Your task to perform on an android device: turn off priority inbox in the gmail app Image 0: 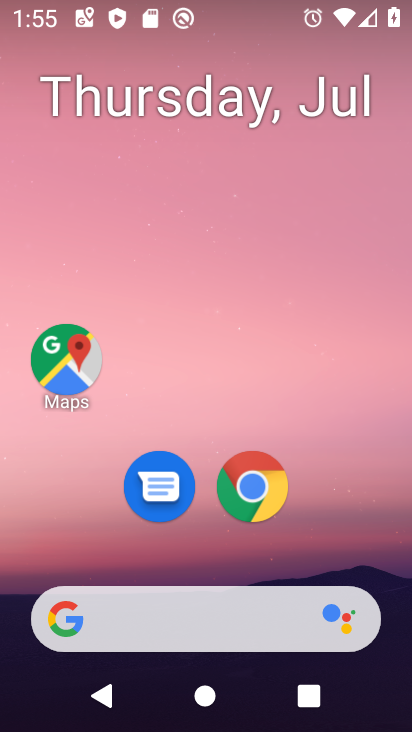
Step 0: drag from (163, 381) to (232, 39)
Your task to perform on an android device: turn off priority inbox in the gmail app Image 1: 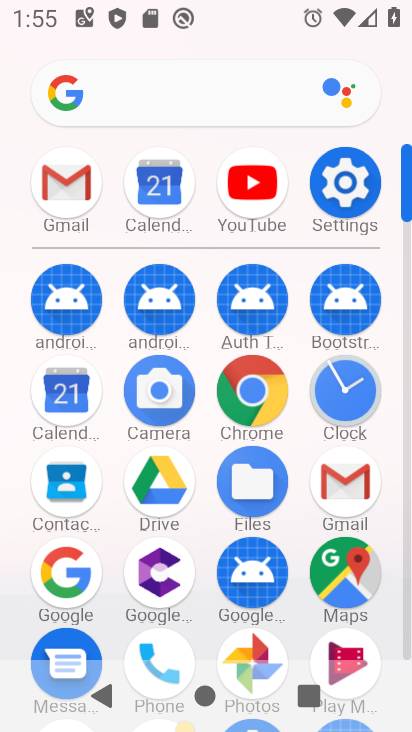
Step 1: click (67, 177)
Your task to perform on an android device: turn off priority inbox in the gmail app Image 2: 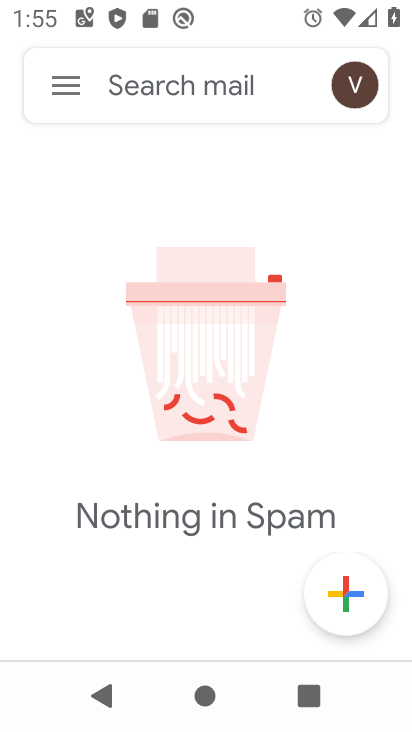
Step 2: click (62, 87)
Your task to perform on an android device: turn off priority inbox in the gmail app Image 3: 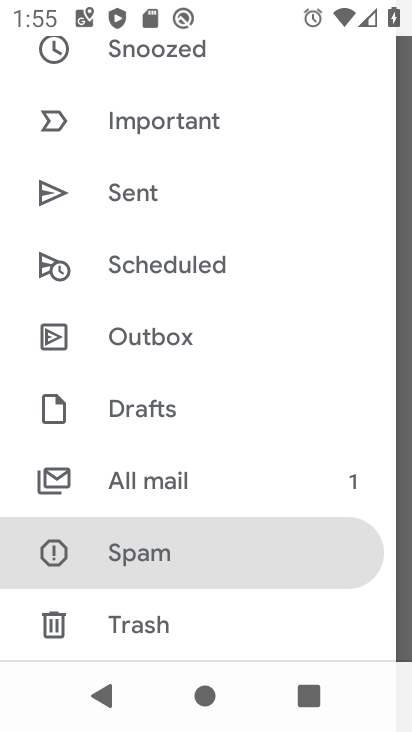
Step 3: drag from (191, 598) to (271, 52)
Your task to perform on an android device: turn off priority inbox in the gmail app Image 4: 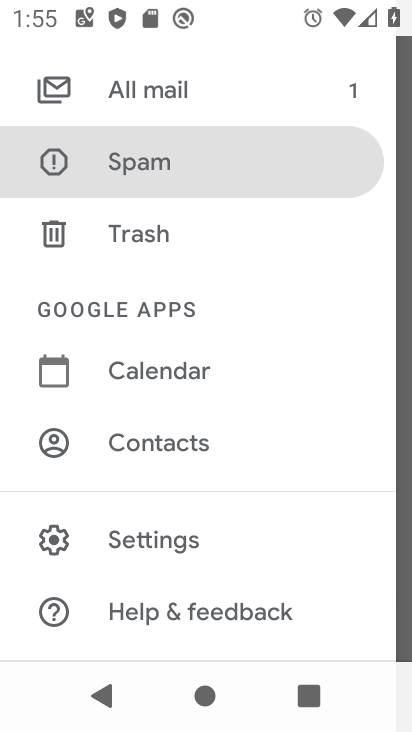
Step 4: click (105, 542)
Your task to perform on an android device: turn off priority inbox in the gmail app Image 5: 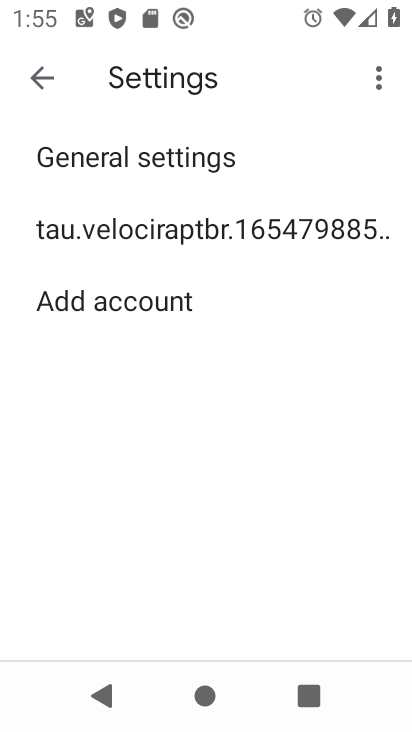
Step 5: click (134, 232)
Your task to perform on an android device: turn off priority inbox in the gmail app Image 6: 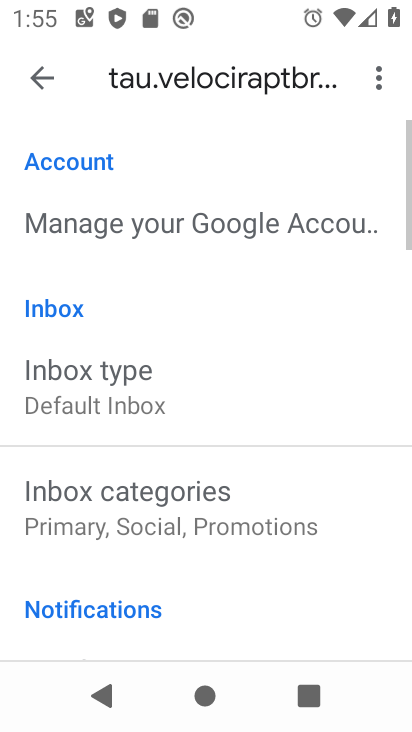
Step 6: click (81, 384)
Your task to perform on an android device: turn off priority inbox in the gmail app Image 7: 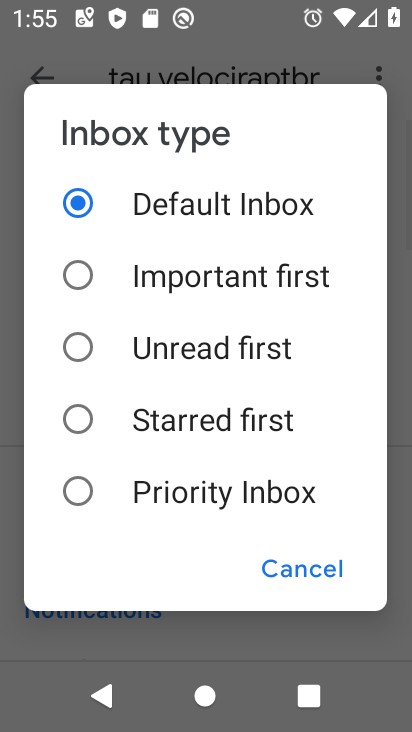
Step 7: task complete